Your task to perform on an android device: Add "razer blade" to the cart on costco, then select checkout. Image 0: 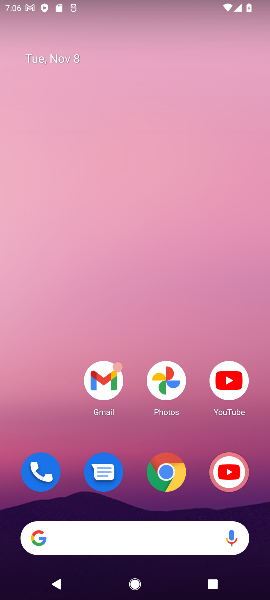
Step 0: click (165, 475)
Your task to perform on an android device: Add "razer blade" to the cart on costco, then select checkout. Image 1: 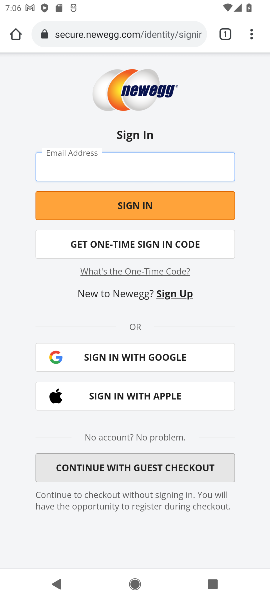
Step 1: click (140, 34)
Your task to perform on an android device: Add "razer blade" to the cart on costco, then select checkout. Image 2: 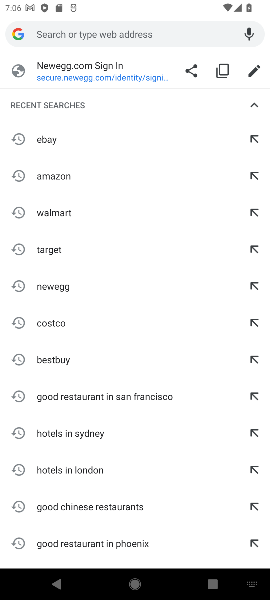
Step 2: click (48, 318)
Your task to perform on an android device: Add "razer blade" to the cart on costco, then select checkout. Image 3: 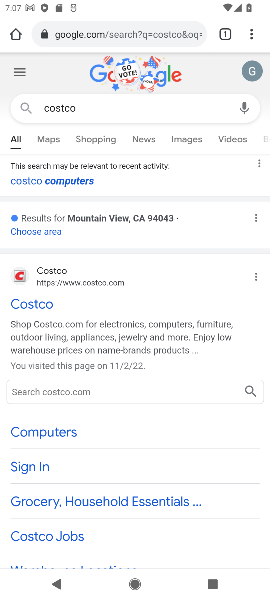
Step 3: click (96, 246)
Your task to perform on an android device: Add "razer blade" to the cart on costco, then select checkout. Image 4: 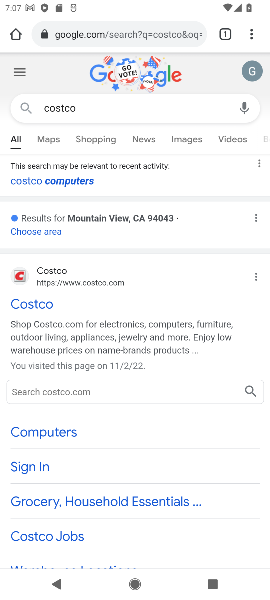
Step 4: click (36, 301)
Your task to perform on an android device: Add "razer blade" to the cart on costco, then select checkout. Image 5: 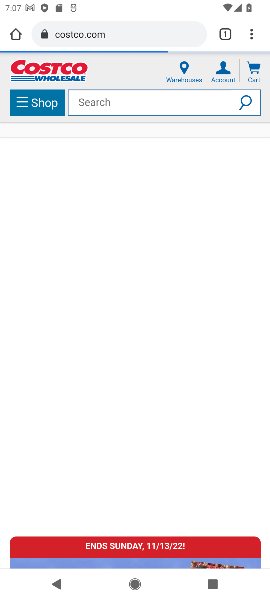
Step 5: click (100, 104)
Your task to perform on an android device: Add "razer blade" to the cart on costco, then select checkout. Image 6: 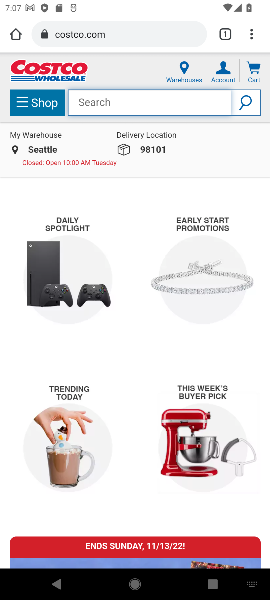
Step 6: type "razer blade"
Your task to perform on an android device: Add "razer blade" to the cart on costco, then select checkout. Image 7: 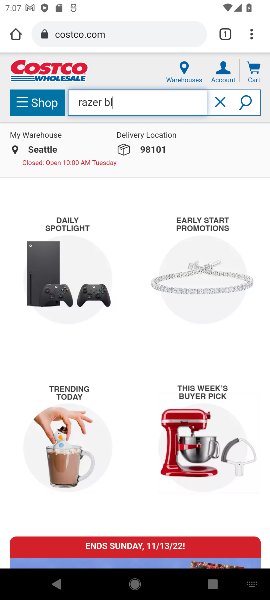
Step 7: press enter
Your task to perform on an android device: Add "razer blade" to the cart on costco, then select checkout. Image 8: 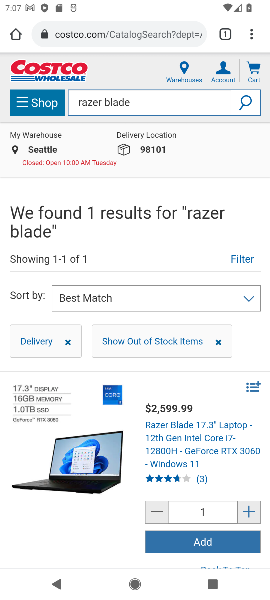
Step 8: drag from (138, 465) to (211, 254)
Your task to perform on an android device: Add "razer blade" to the cart on costco, then select checkout. Image 9: 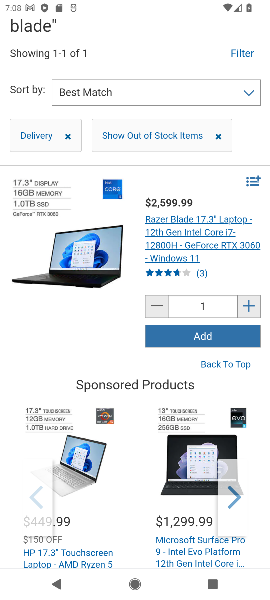
Step 9: click (205, 333)
Your task to perform on an android device: Add "razer blade" to the cart on costco, then select checkout. Image 10: 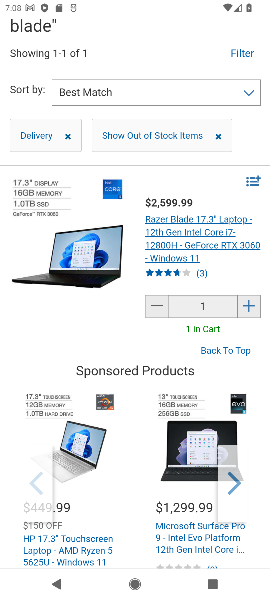
Step 10: drag from (202, 180) to (148, 465)
Your task to perform on an android device: Add "razer blade" to the cart on costco, then select checkout. Image 11: 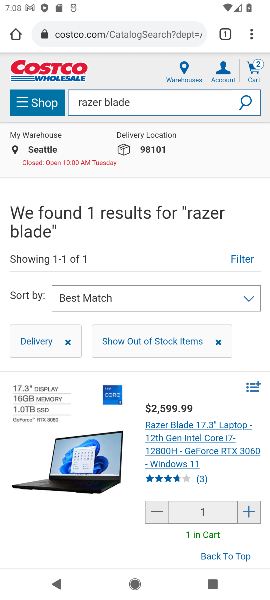
Step 11: click (253, 59)
Your task to perform on an android device: Add "razer blade" to the cart on costco, then select checkout. Image 12: 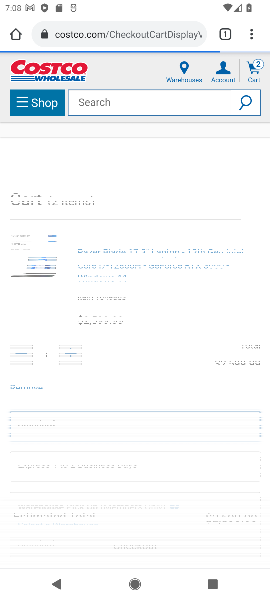
Step 12: drag from (123, 361) to (218, 54)
Your task to perform on an android device: Add "razer blade" to the cart on costco, then select checkout. Image 13: 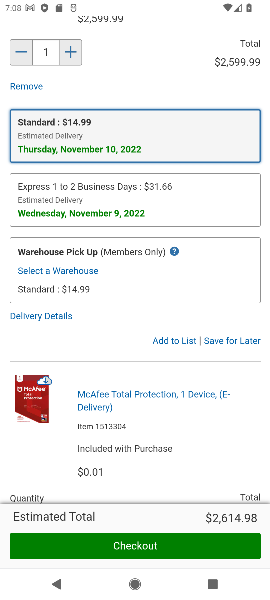
Step 13: drag from (100, 446) to (180, 5)
Your task to perform on an android device: Add "razer blade" to the cart on costco, then select checkout. Image 14: 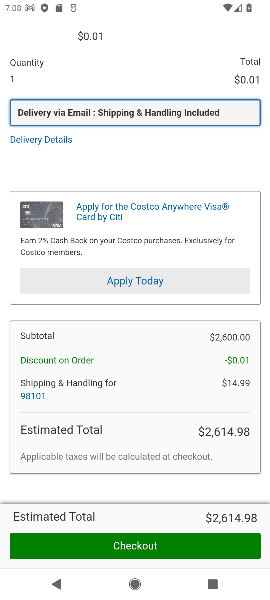
Step 14: drag from (140, 458) to (127, 130)
Your task to perform on an android device: Add "razer blade" to the cart on costco, then select checkout. Image 15: 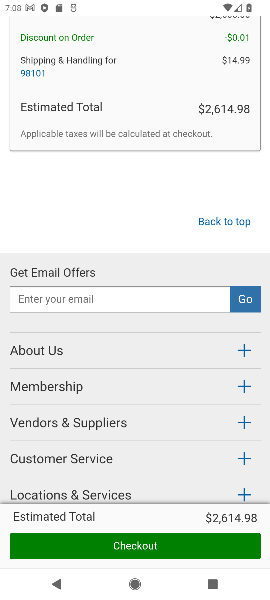
Step 15: click (133, 543)
Your task to perform on an android device: Add "razer blade" to the cart on costco, then select checkout. Image 16: 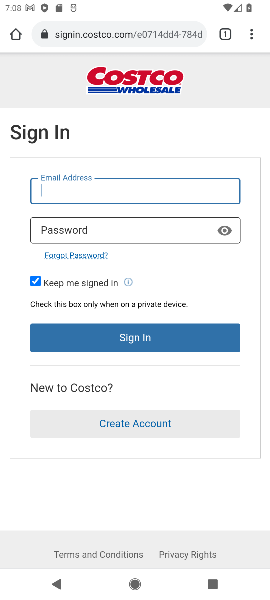
Step 16: task complete